Your task to perform on an android device: open a new tab in the chrome app Image 0: 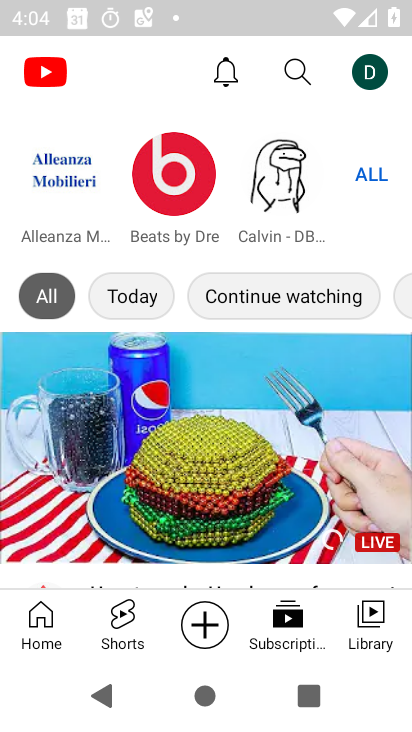
Step 0: press home button
Your task to perform on an android device: open a new tab in the chrome app Image 1: 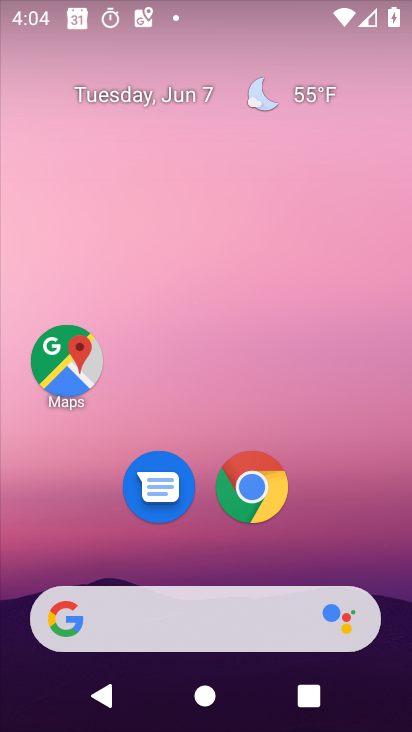
Step 1: click (260, 488)
Your task to perform on an android device: open a new tab in the chrome app Image 2: 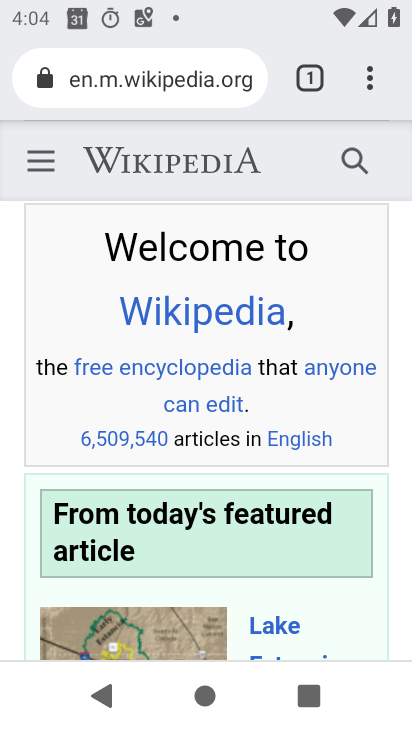
Step 2: click (318, 95)
Your task to perform on an android device: open a new tab in the chrome app Image 3: 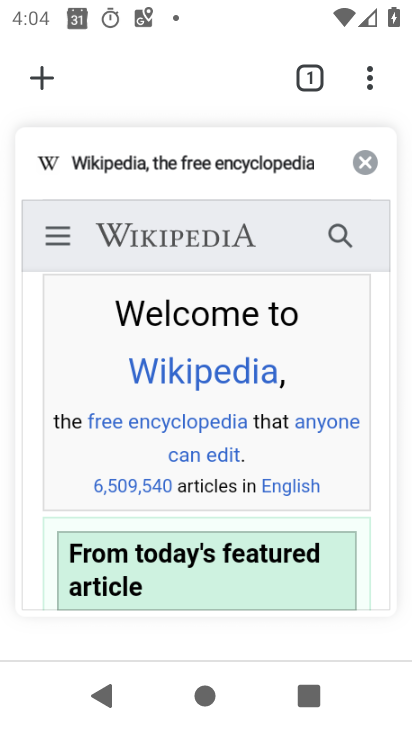
Step 3: click (44, 83)
Your task to perform on an android device: open a new tab in the chrome app Image 4: 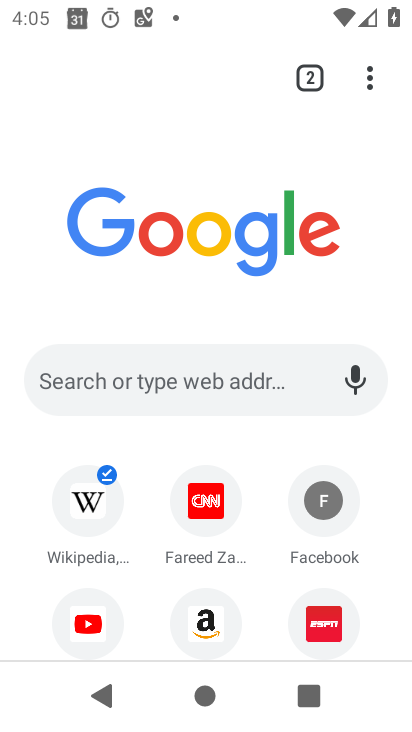
Step 4: task complete